Your task to perform on an android device: Open ESPN.com Image 0: 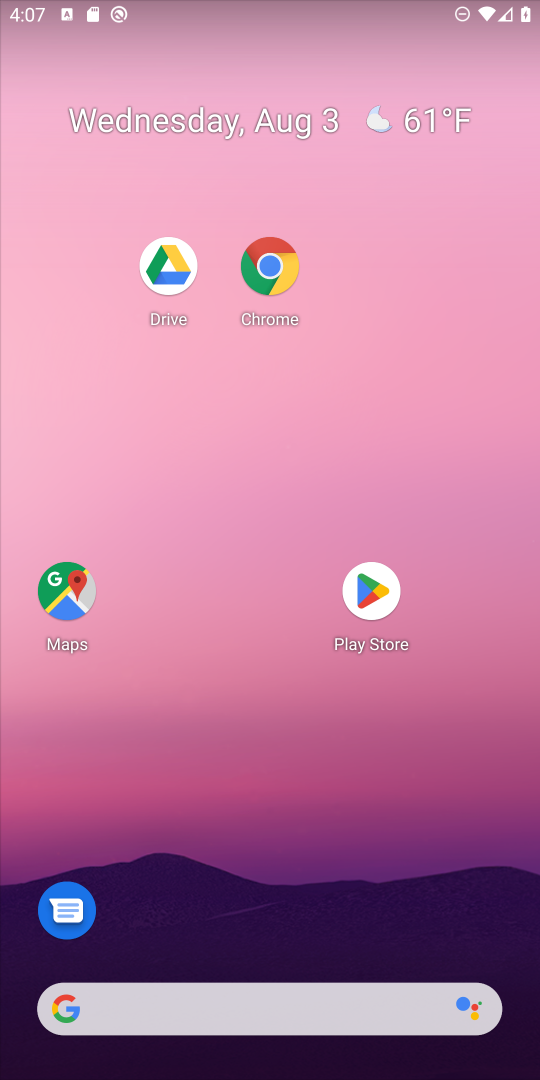
Step 0: drag from (401, 642) to (522, 1015)
Your task to perform on an android device: Open ESPN.com Image 1: 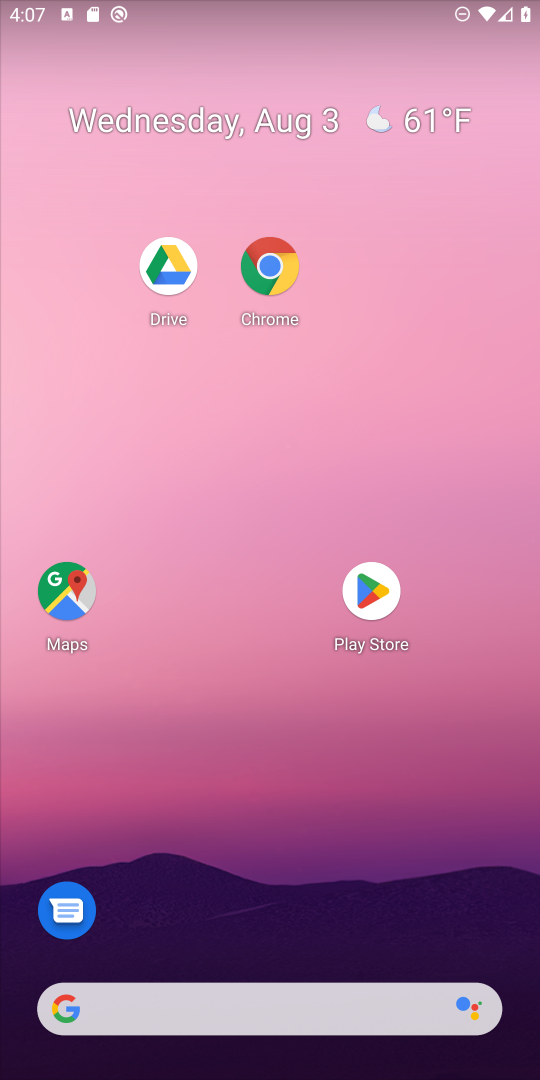
Step 1: drag from (341, 913) to (411, 17)
Your task to perform on an android device: Open ESPN.com Image 2: 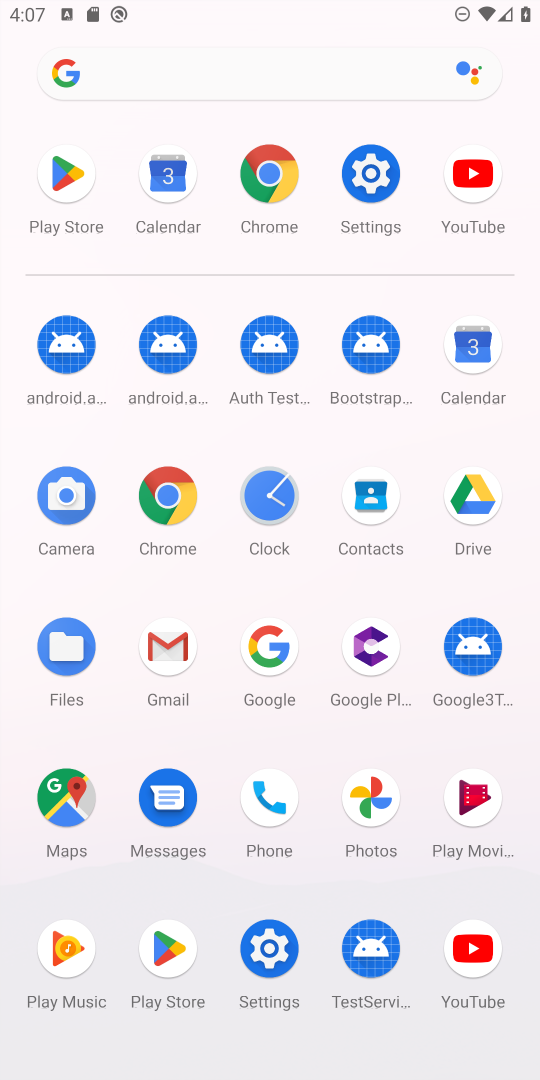
Step 2: click (154, 482)
Your task to perform on an android device: Open ESPN.com Image 3: 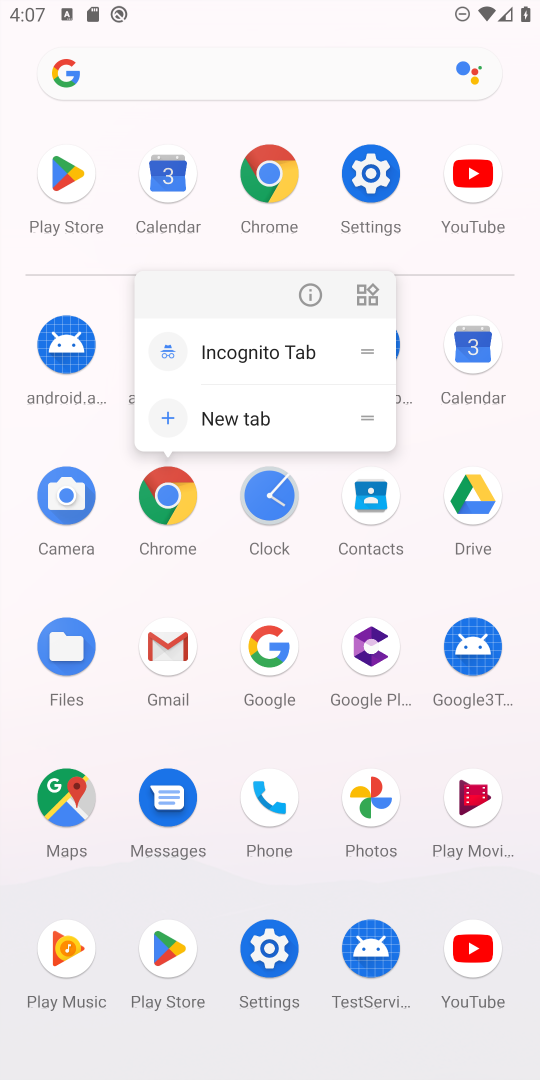
Step 3: click (154, 482)
Your task to perform on an android device: Open ESPN.com Image 4: 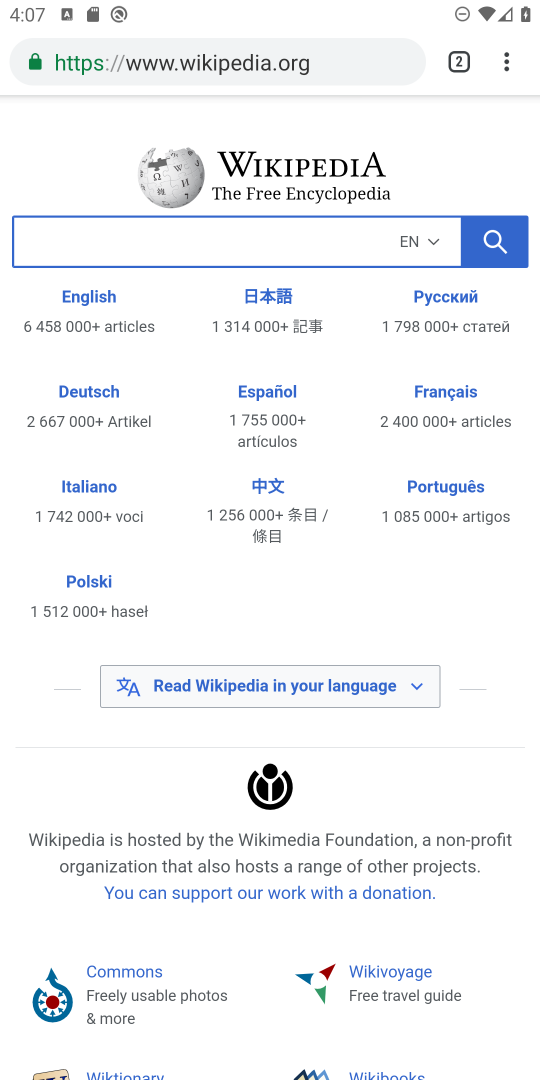
Step 4: drag from (502, 59) to (437, 97)
Your task to perform on an android device: Open ESPN.com Image 5: 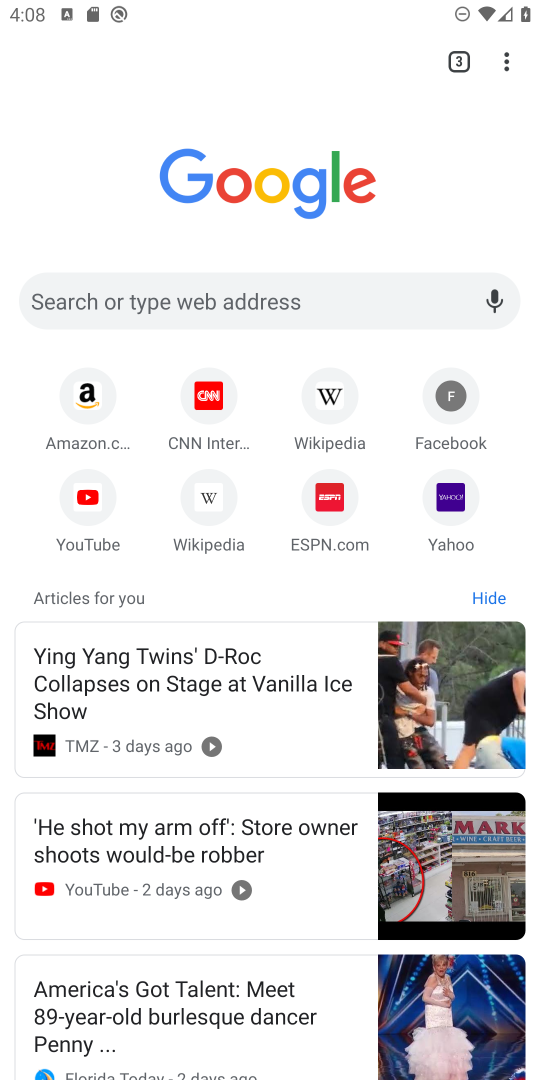
Step 5: click (347, 529)
Your task to perform on an android device: Open ESPN.com Image 6: 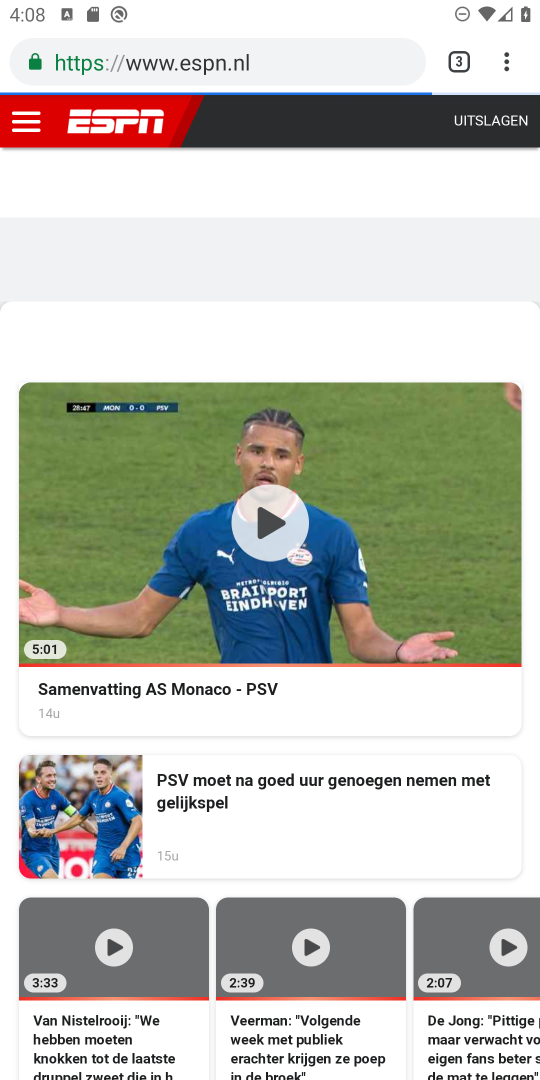
Step 6: task complete